Your task to perform on an android device: open a new tab in the chrome app Image 0: 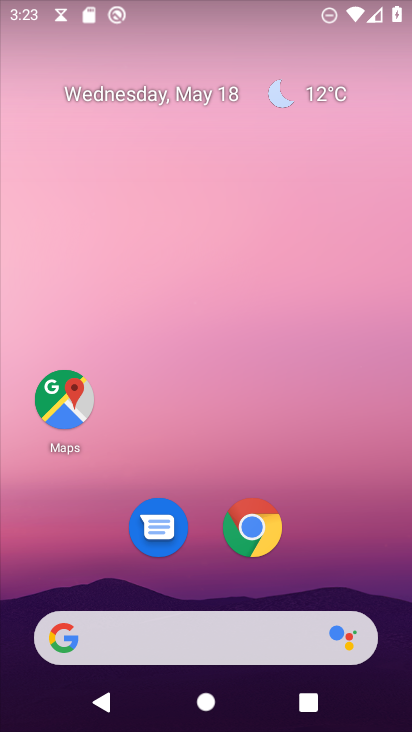
Step 0: click (257, 535)
Your task to perform on an android device: open a new tab in the chrome app Image 1: 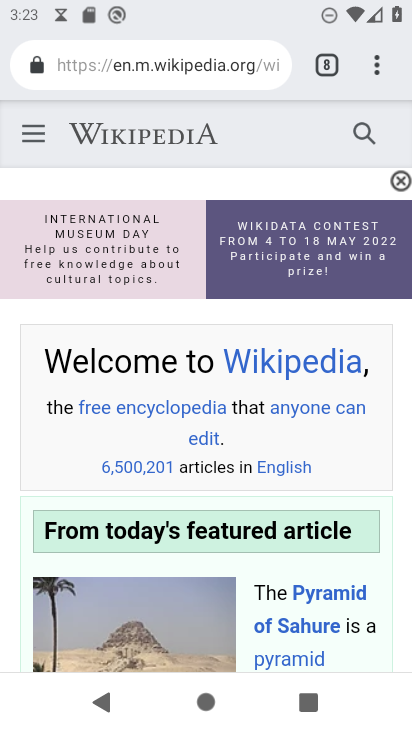
Step 1: click (375, 67)
Your task to perform on an android device: open a new tab in the chrome app Image 2: 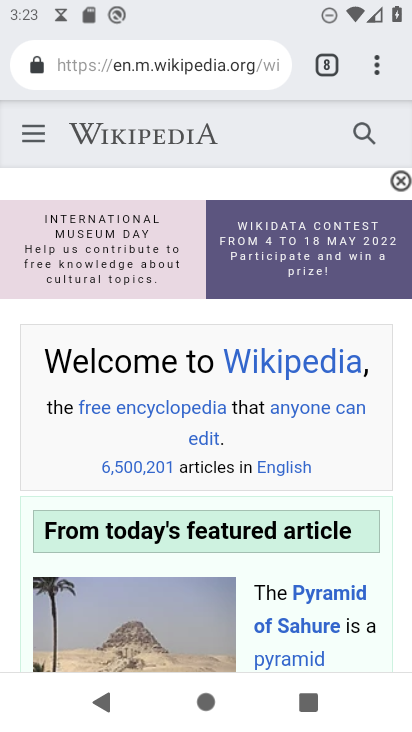
Step 2: click (379, 62)
Your task to perform on an android device: open a new tab in the chrome app Image 3: 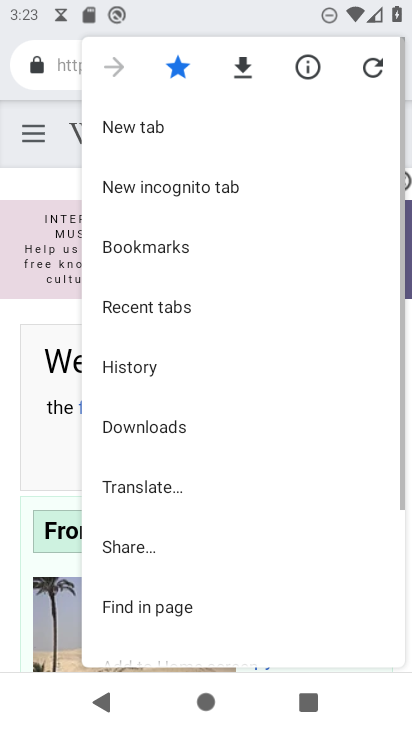
Step 3: click (159, 118)
Your task to perform on an android device: open a new tab in the chrome app Image 4: 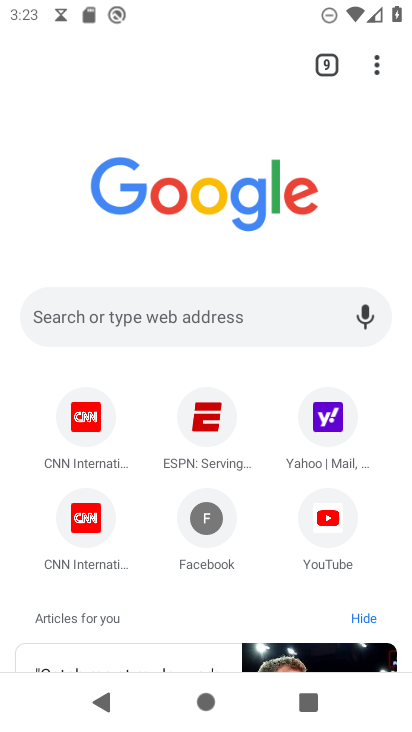
Step 4: task complete